Your task to perform on an android device: toggle wifi Image 0: 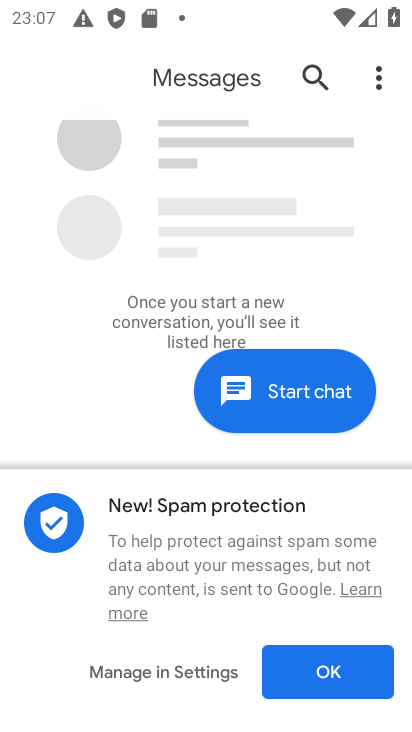
Step 0: drag from (300, 661) to (193, 304)
Your task to perform on an android device: toggle wifi Image 1: 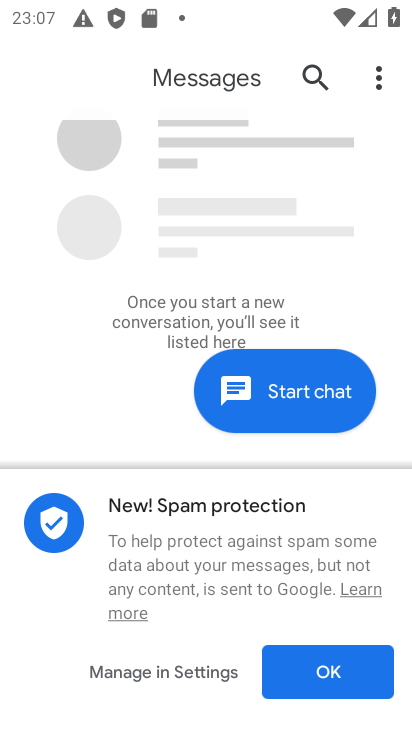
Step 1: click (305, 682)
Your task to perform on an android device: toggle wifi Image 2: 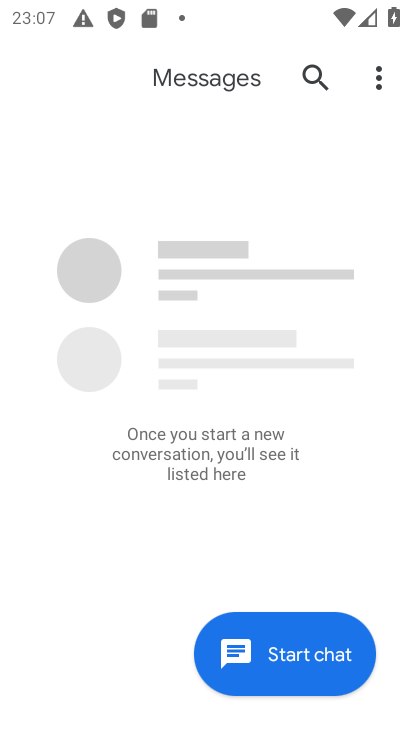
Step 2: press back button
Your task to perform on an android device: toggle wifi Image 3: 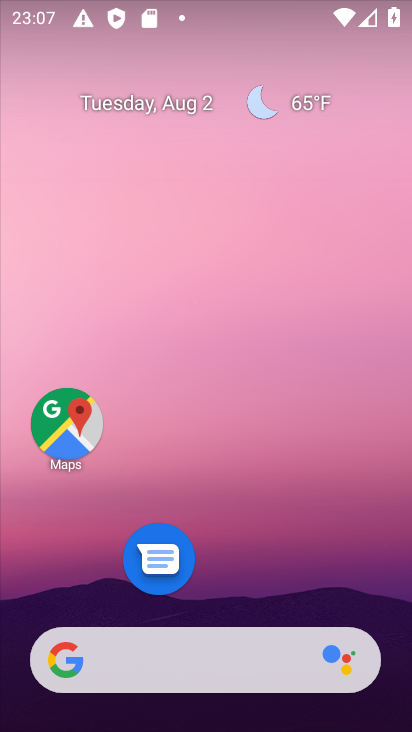
Step 3: drag from (166, 665) to (185, 195)
Your task to perform on an android device: toggle wifi Image 4: 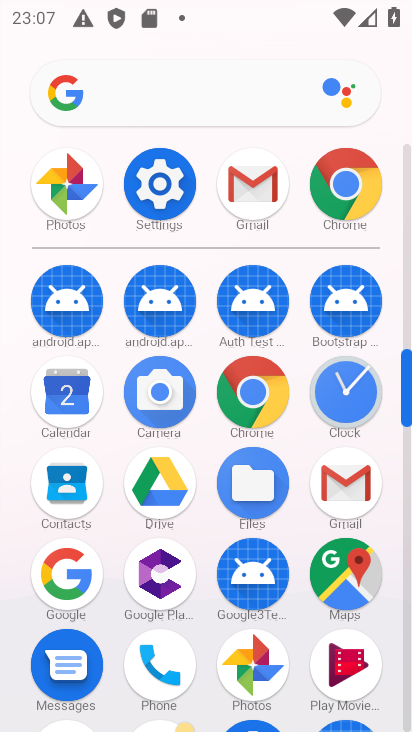
Step 4: click (156, 178)
Your task to perform on an android device: toggle wifi Image 5: 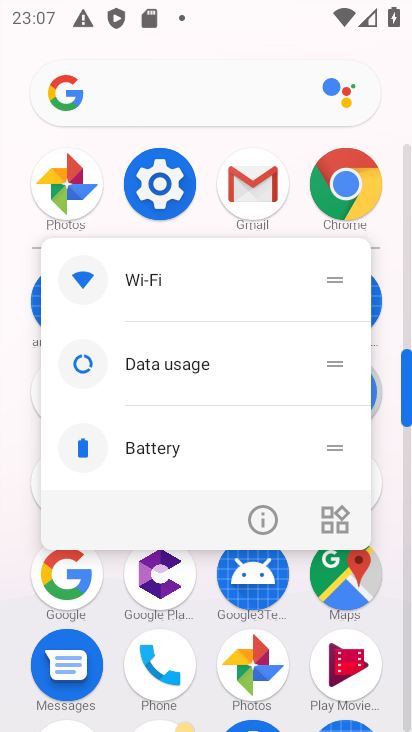
Step 5: click (156, 177)
Your task to perform on an android device: toggle wifi Image 6: 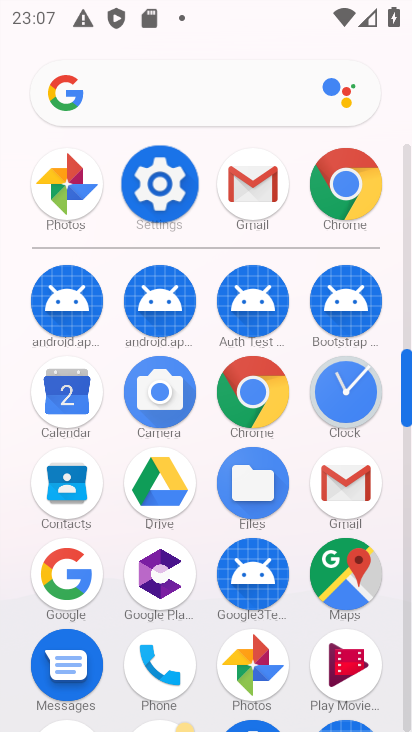
Step 6: click (156, 177)
Your task to perform on an android device: toggle wifi Image 7: 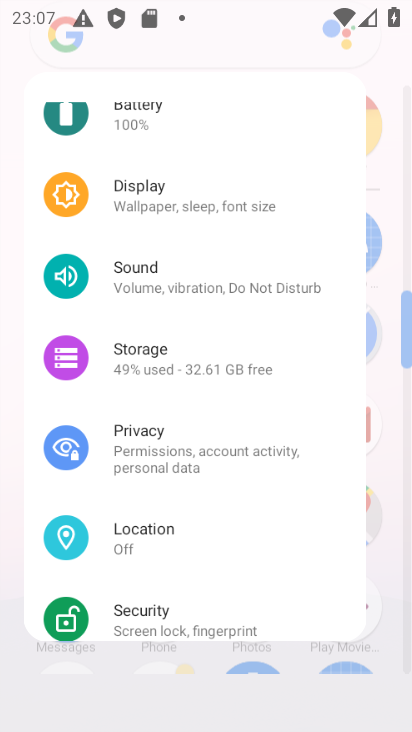
Step 7: click (170, 185)
Your task to perform on an android device: toggle wifi Image 8: 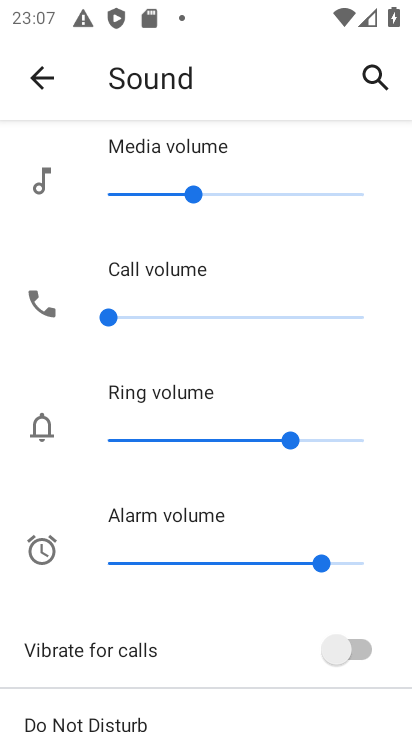
Step 8: click (51, 74)
Your task to perform on an android device: toggle wifi Image 9: 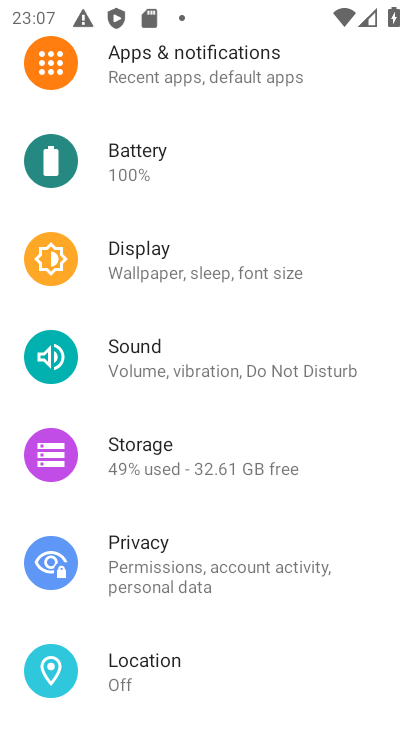
Step 9: drag from (183, 274) to (185, 688)
Your task to perform on an android device: toggle wifi Image 10: 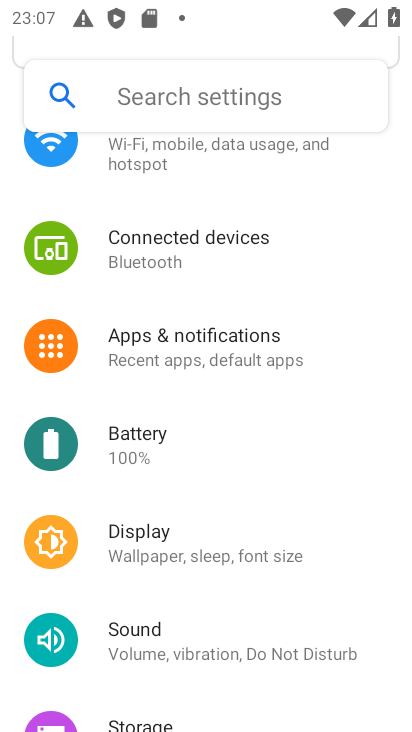
Step 10: drag from (202, 240) to (238, 553)
Your task to perform on an android device: toggle wifi Image 11: 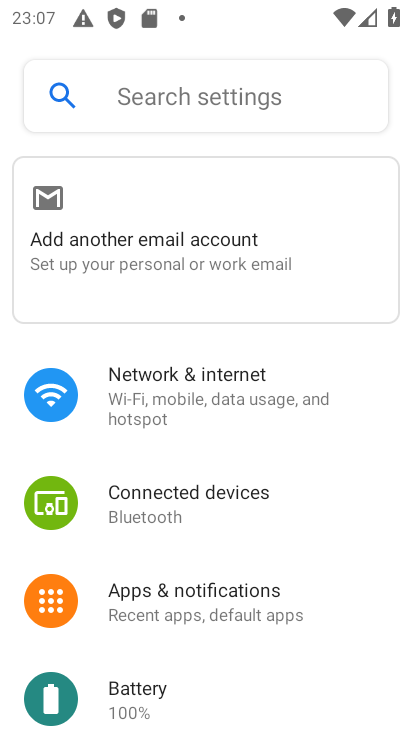
Step 11: drag from (230, 289) to (235, 638)
Your task to perform on an android device: toggle wifi Image 12: 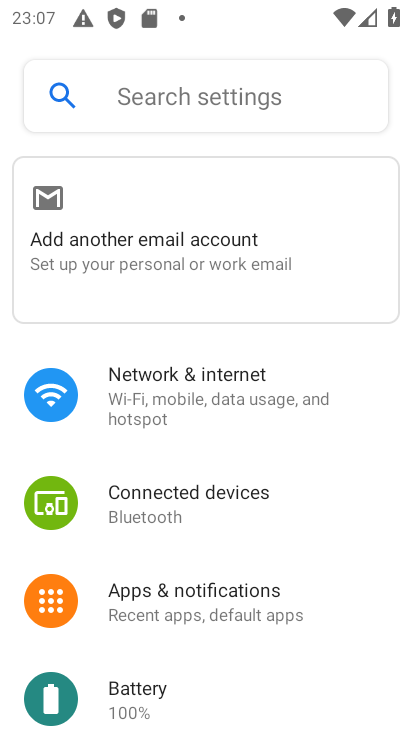
Step 12: click (174, 388)
Your task to perform on an android device: toggle wifi Image 13: 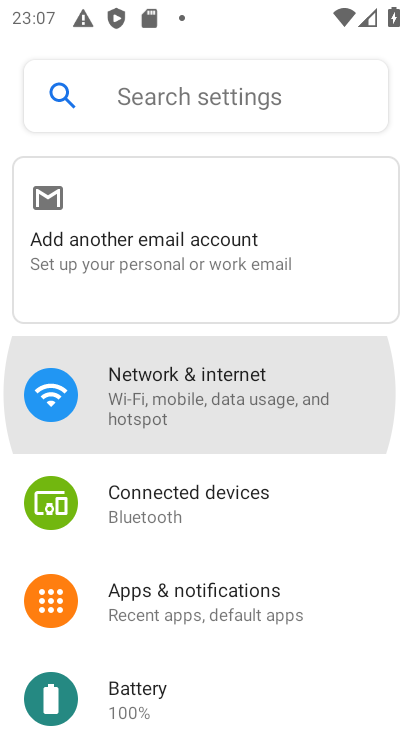
Step 13: click (174, 388)
Your task to perform on an android device: toggle wifi Image 14: 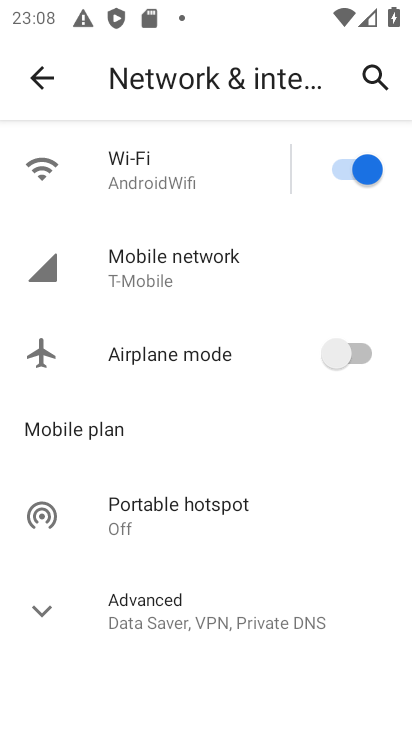
Step 14: click (375, 173)
Your task to perform on an android device: toggle wifi Image 15: 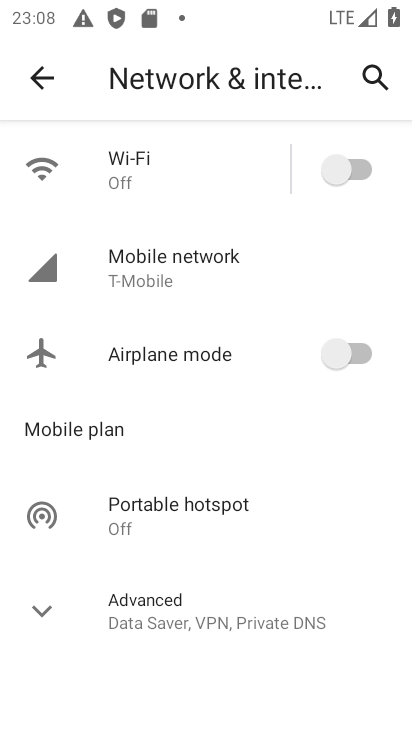
Step 15: task complete